Your task to perform on an android device: check the backup settings in the google photos Image 0: 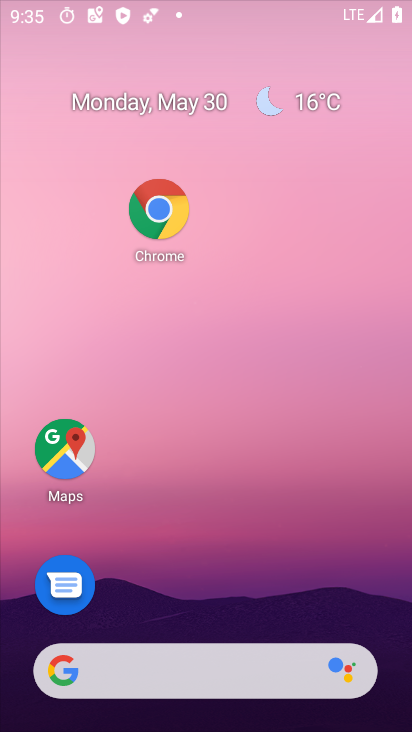
Step 0: drag from (216, 582) to (313, 80)
Your task to perform on an android device: check the backup settings in the google photos Image 1: 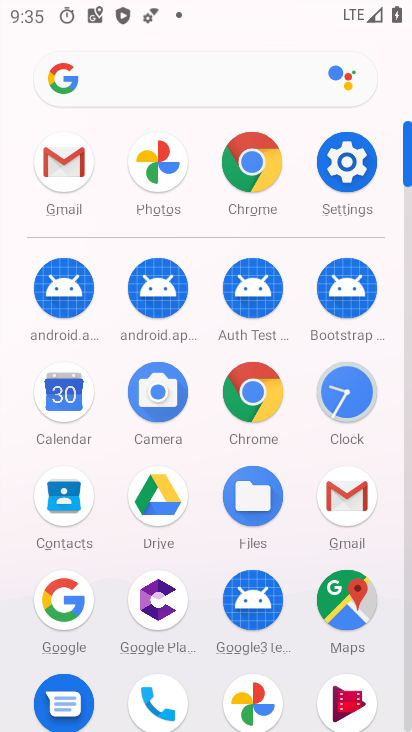
Step 1: click (252, 704)
Your task to perform on an android device: check the backup settings in the google photos Image 2: 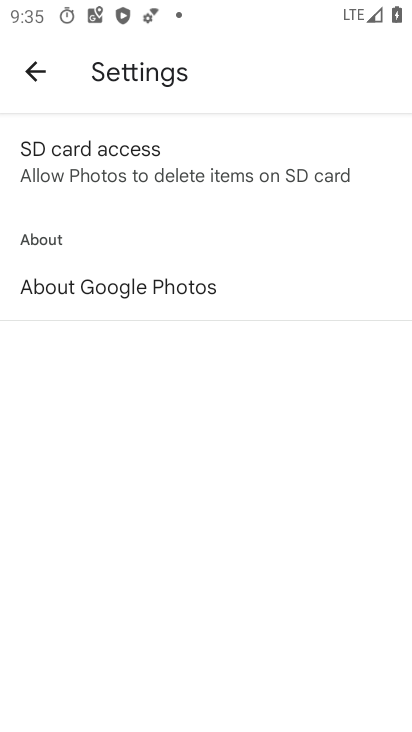
Step 2: click (271, 486)
Your task to perform on an android device: check the backup settings in the google photos Image 3: 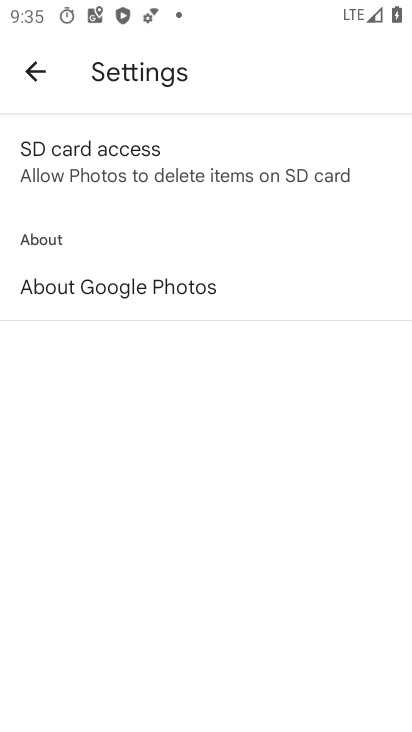
Step 3: press home button
Your task to perform on an android device: check the backup settings in the google photos Image 4: 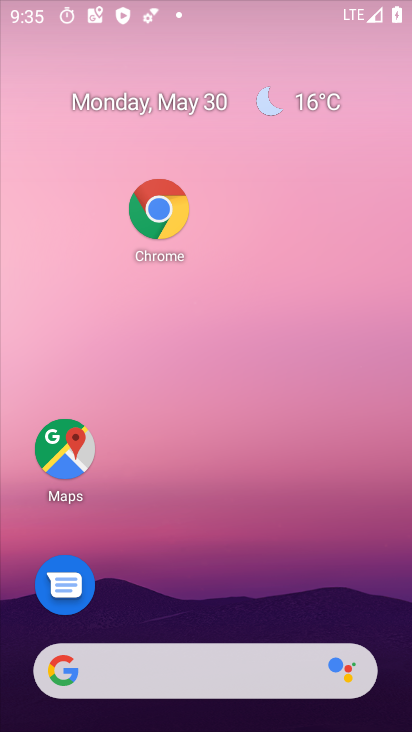
Step 4: drag from (211, 589) to (309, 10)
Your task to perform on an android device: check the backup settings in the google photos Image 5: 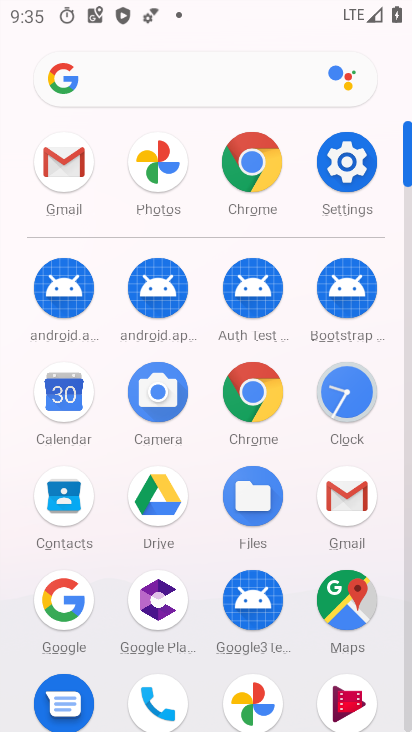
Step 5: click (250, 681)
Your task to perform on an android device: check the backup settings in the google photos Image 6: 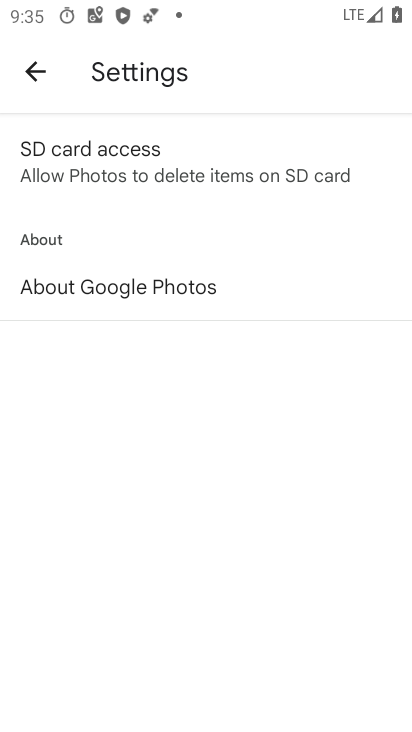
Step 6: click (46, 77)
Your task to perform on an android device: check the backup settings in the google photos Image 7: 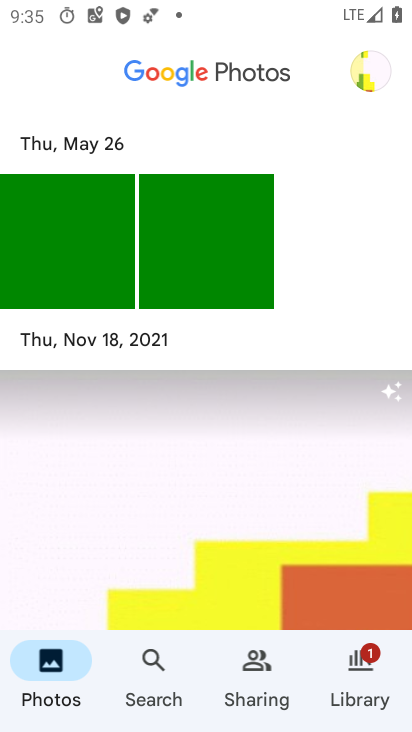
Step 7: click (95, 269)
Your task to perform on an android device: check the backup settings in the google photos Image 8: 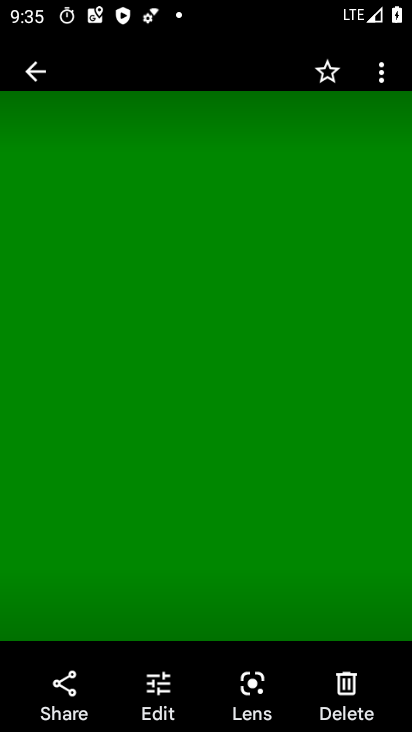
Step 8: drag from (366, 402) to (1, 401)
Your task to perform on an android device: check the backup settings in the google photos Image 9: 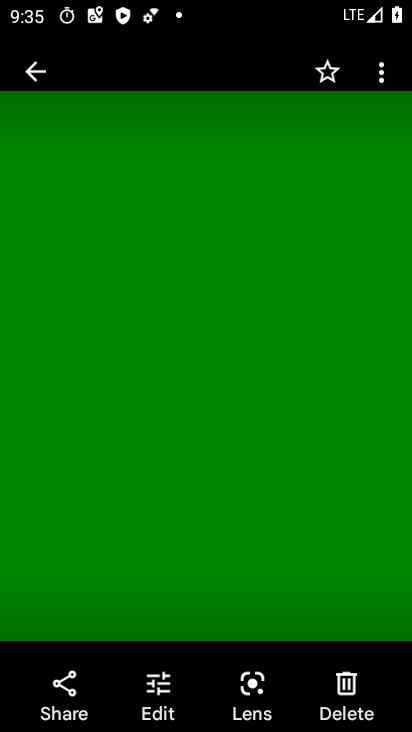
Step 9: drag from (388, 460) to (32, 498)
Your task to perform on an android device: check the backup settings in the google photos Image 10: 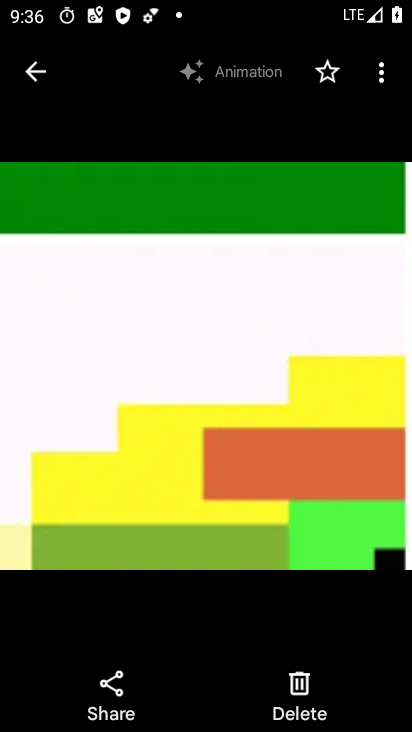
Step 10: click (30, 75)
Your task to perform on an android device: check the backup settings in the google photos Image 11: 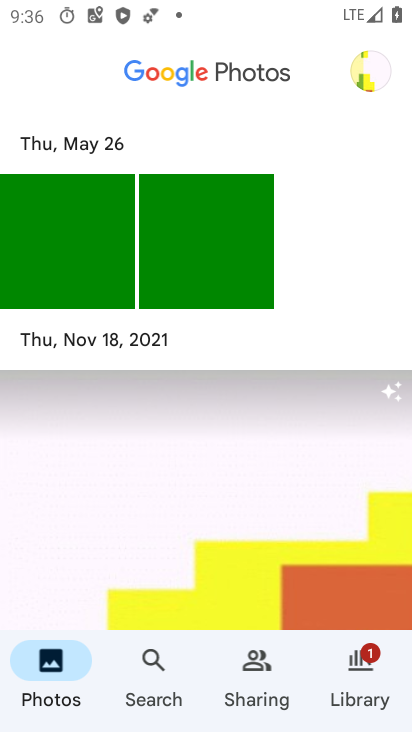
Step 11: click (376, 76)
Your task to perform on an android device: check the backup settings in the google photos Image 12: 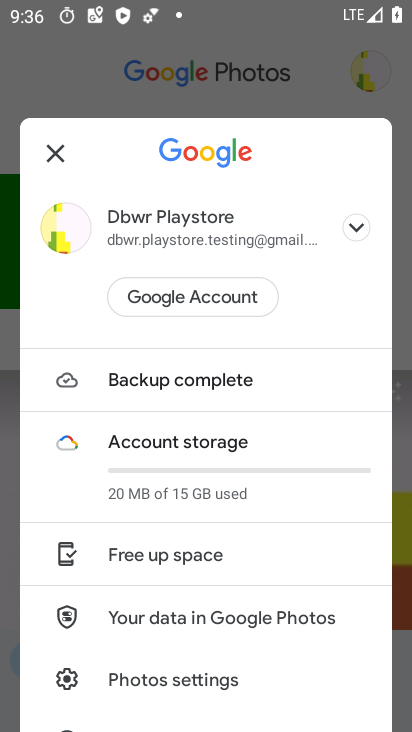
Step 12: drag from (224, 606) to (279, 285)
Your task to perform on an android device: check the backup settings in the google photos Image 13: 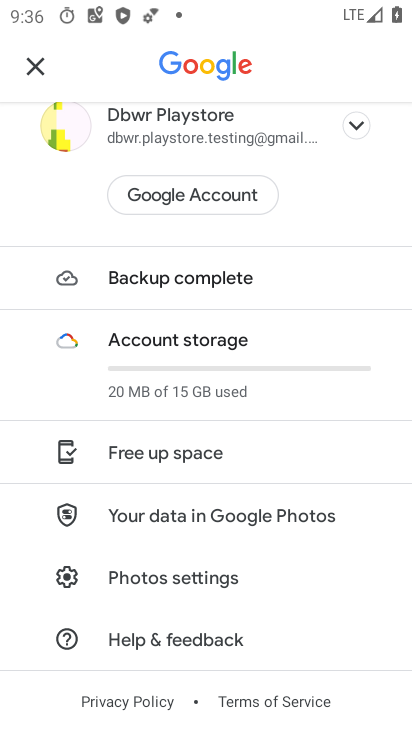
Step 13: click (168, 584)
Your task to perform on an android device: check the backup settings in the google photos Image 14: 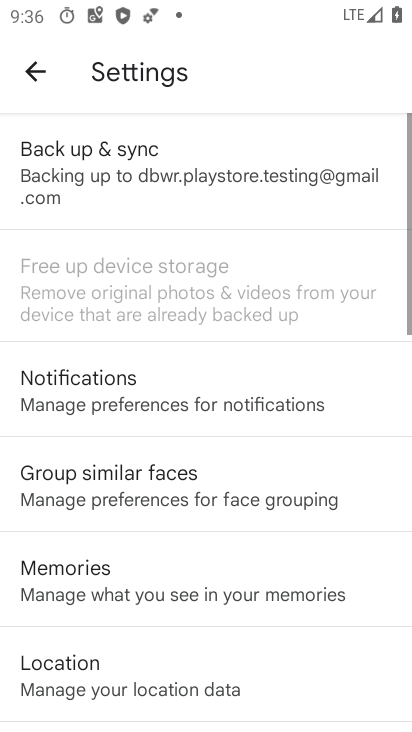
Step 14: drag from (226, 545) to (355, 138)
Your task to perform on an android device: check the backup settings in the google photos Image 15: 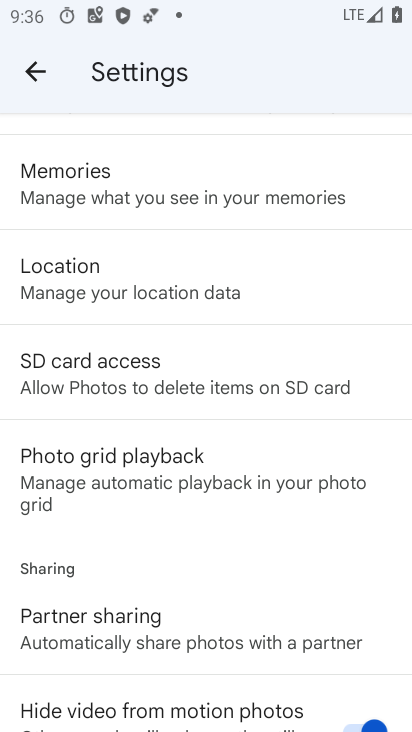
Step 15: drag from (279, 241) to (258, 729)
Your task to perform on an android device: check the backup settings in the google photos Image 16: 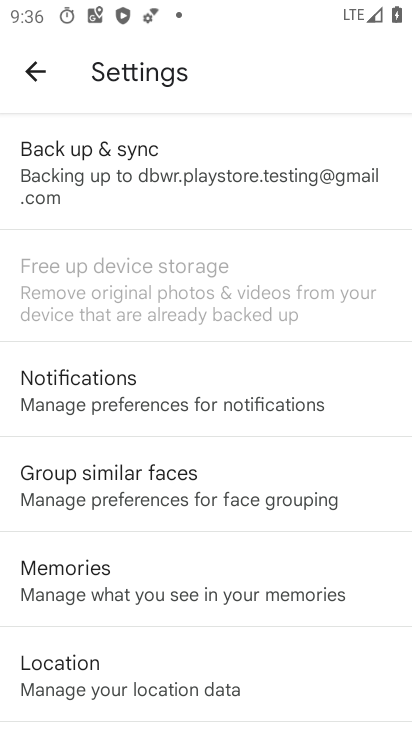
Step 16: click (175, 176)
Your task to perform on an android device: check the backup settings in the google photos Image 17: 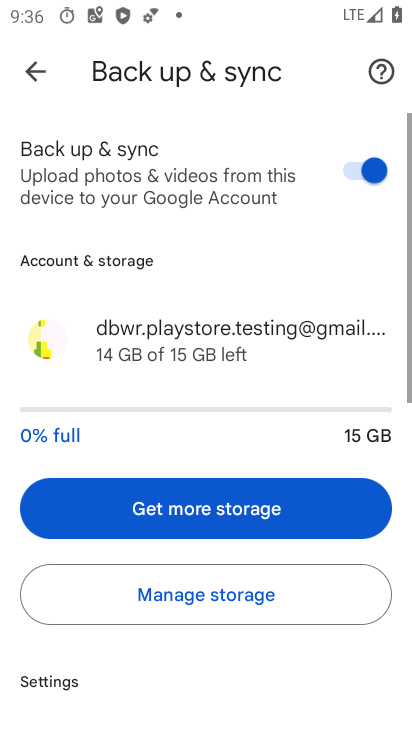
Step 17: task complete